Your task to perform on an android device: make emails show in primary in the gmail app Image 0: 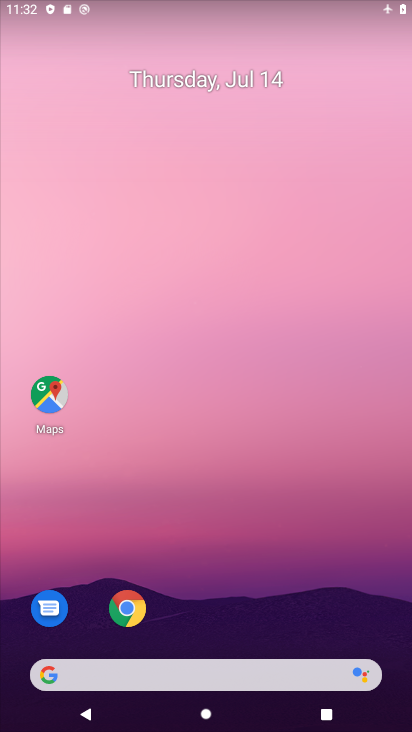
Step 0: drag from (262, 644) to (375, 126)
Your task to perform on an android device: make emails show in primary in the gmail app Image 1: 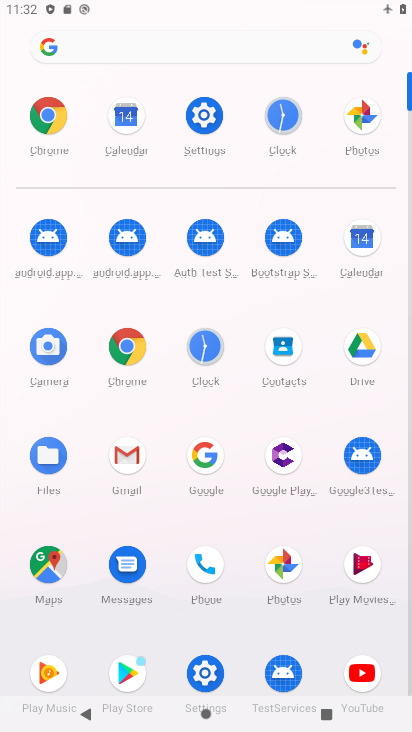
Step 1: click (115, 449)
Your task to perform on an android device: make emails show in primary in the gmail app Image 2: 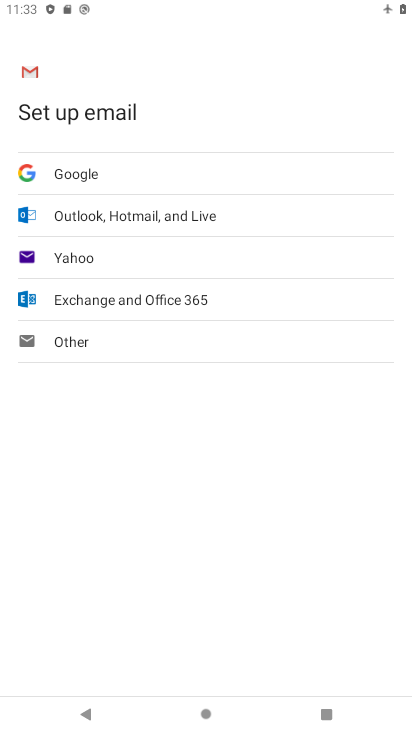
Step 2: press home button
Your task to perform on an android device: make emails show in primary in the gmail app Image 3: 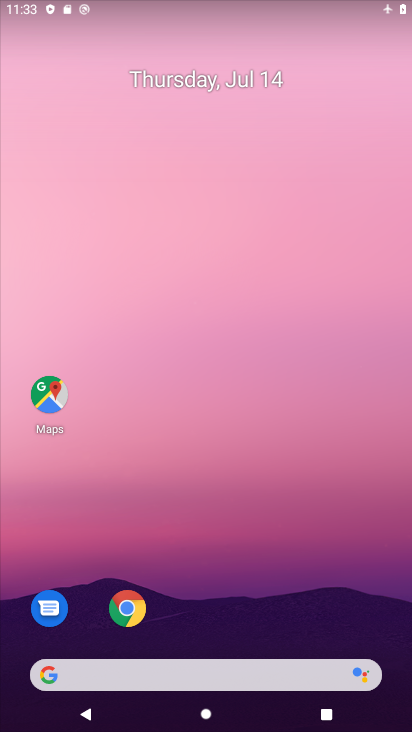
Step 3: drag from (372, 721) to (172, 308)
Your task to perform on an android device: make emails show in primary in the gmail app Image 4: 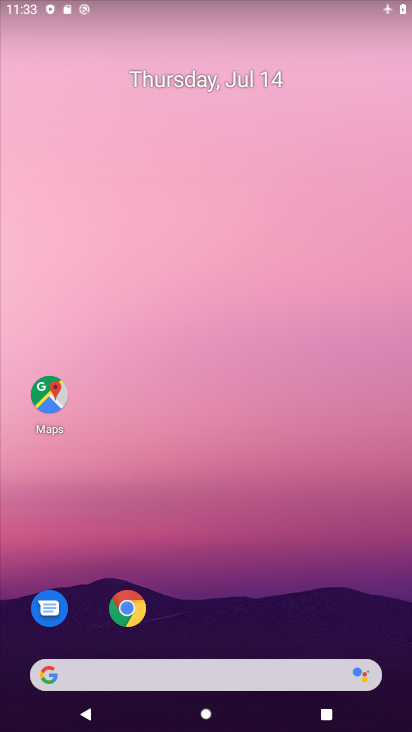
Step 4: drag from (284, 655) to (340, 183)
Your task to perform on an android device: make emails show in primary in the gmail app Image 5: 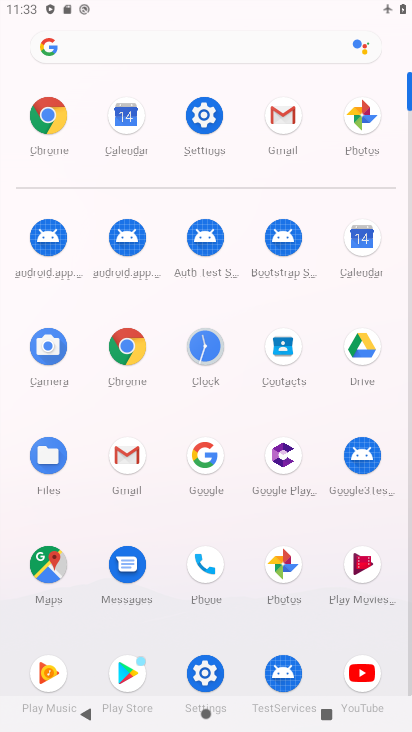
Step 5: click (129, 462)
Your task to perform on an android device: make emails show in primary in the gmail app Image 6: 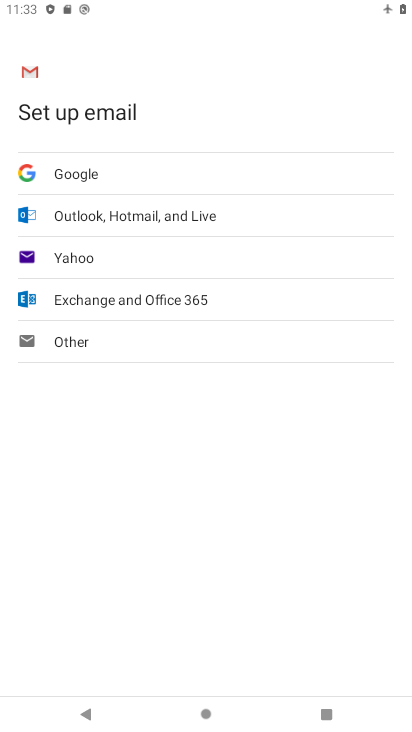
Step 6: press back button
Your task to perform on an android device: make emails show in primary in the gmail app Image 7: 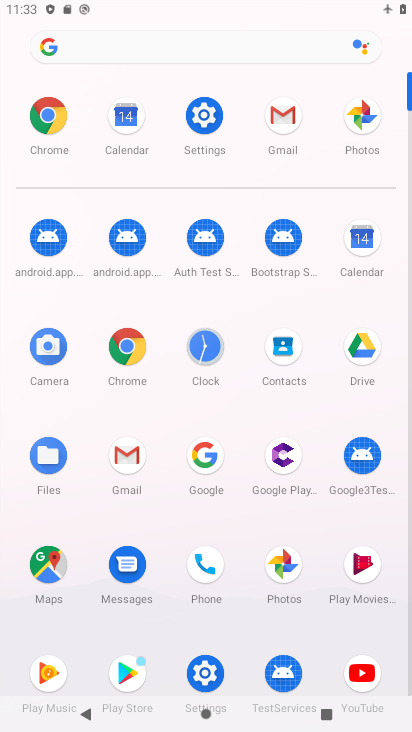
Step 7: click (128, 472)
Your task to perform on an android device: make emails show in primary in the gmail app Image 8: 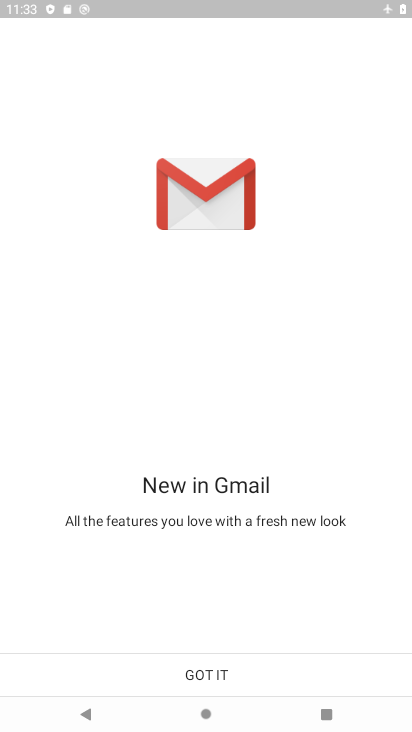
Step 8: click (285, 675)
Your task to perform on an android device: make emails show in primary in the gmail app Image 9: 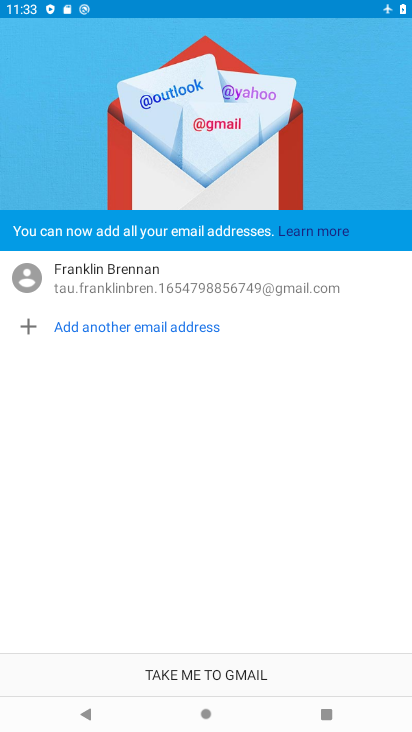
Step 9: click (285, 675)
Your task to perform on an android device: make emails show in primary in the gmail app Image 10: 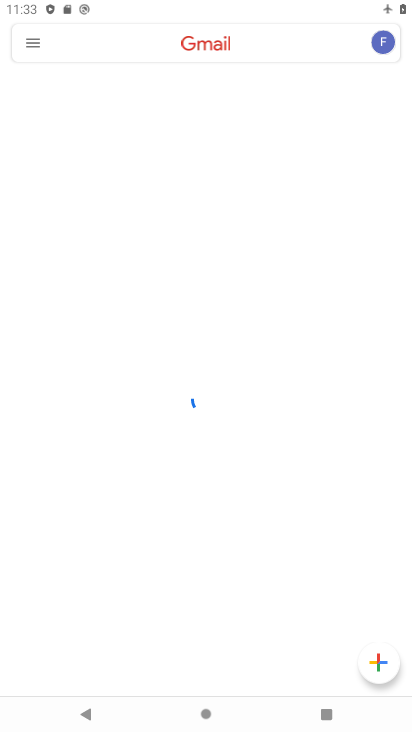
Step 10: click (25, 30)
Your task to perform on an android device: make emails show in primary in the gmail app Image 11: 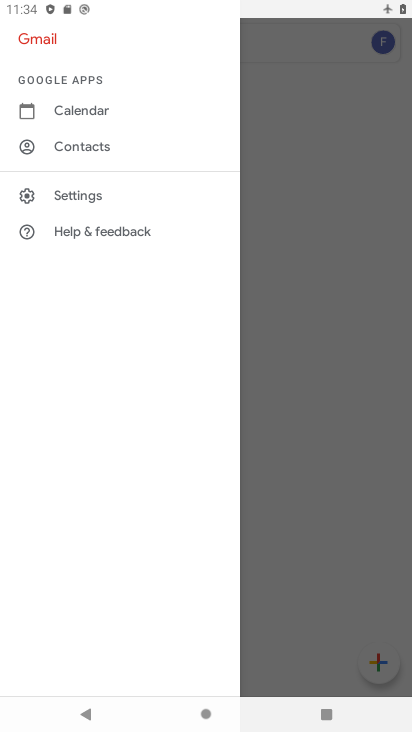
Step 11: click (252, 290)
Your task to perform on an android device: make emails show in primary in the gmail app Image 12: 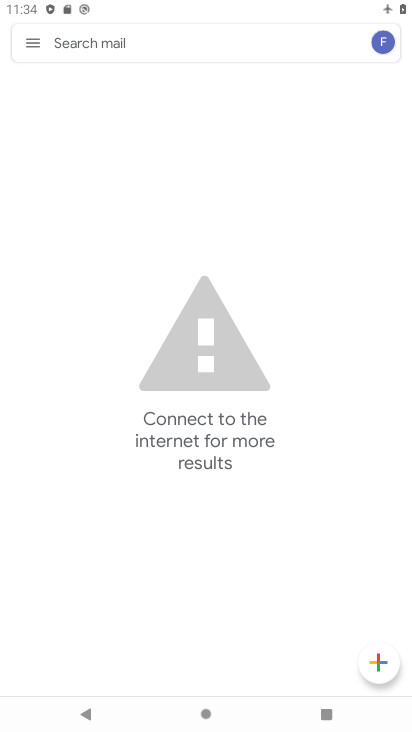
Step 12: task complete